Your task to perform on an android device: Open calendar and show me the second week of next month Image 0: 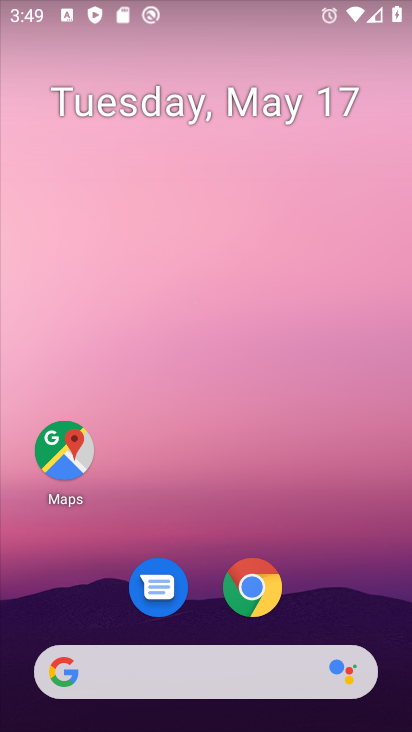
Step 0: drag from (217, 612) to (309, 146)
Your task to perform on an android device: Open calendar and show me the second week of next month Image 1: 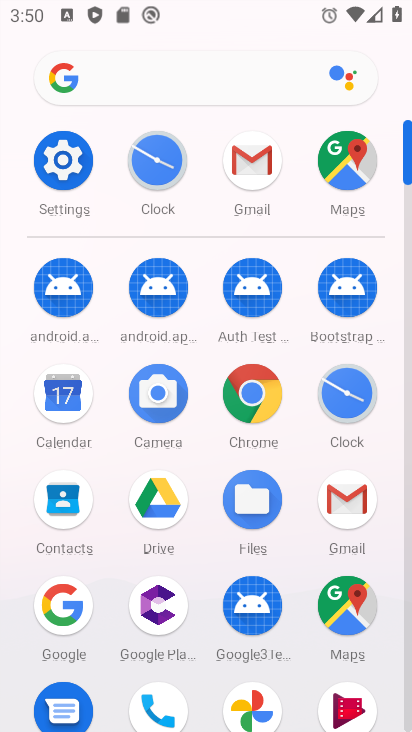
Step 1: click (68, 391)
Your task to perform on an android device: Open calendar and show me the second week of next month Image 2: 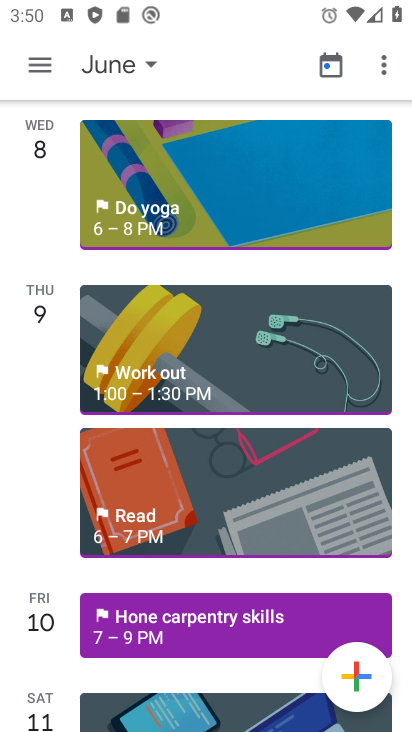
Step 2: click (133, 64)
Your task to perform on an android device: Open calendar and show me the second week of next month Image 3: 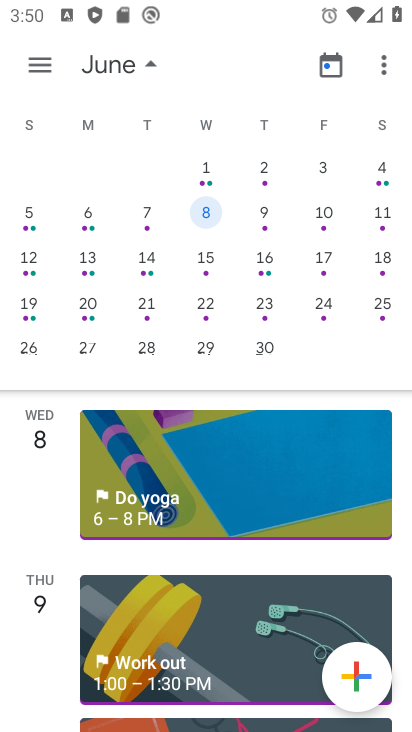
Step 3: click (259, 219)
Your task to perform on an android device: Open calendar and show me the second week of next month Image 4: 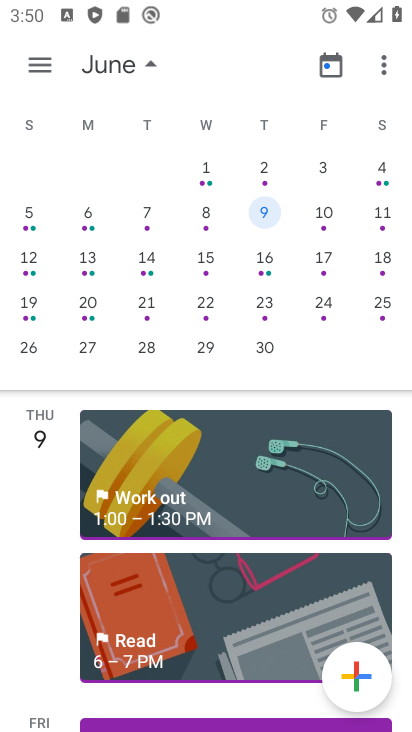
Step 4: task complete